Your task to perform on an android device: Open settings Image 0: 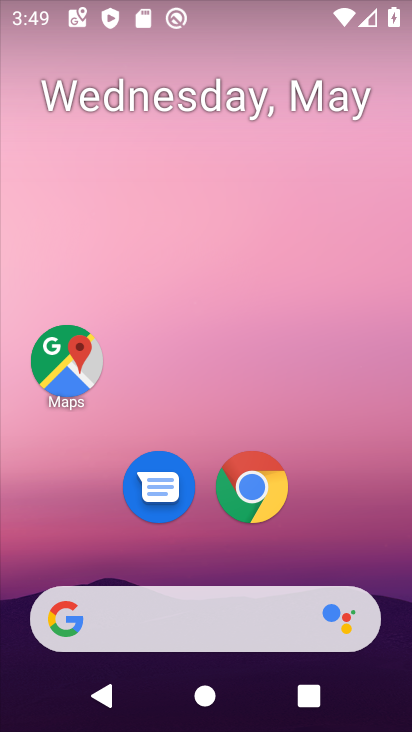
Step 0: drag from (306, 531) to (244, 42)
Your task to perform on an android device: Open settings Image 1: 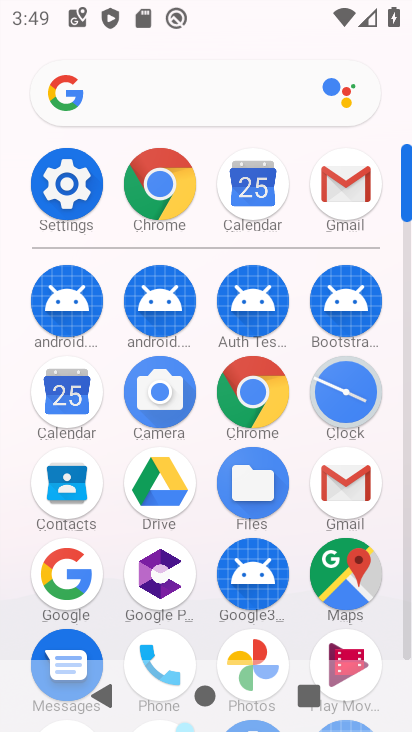
Step 1: drag from (4, 567) to (3, 241)
Your task to perform on an android device: Open settings Image 2: 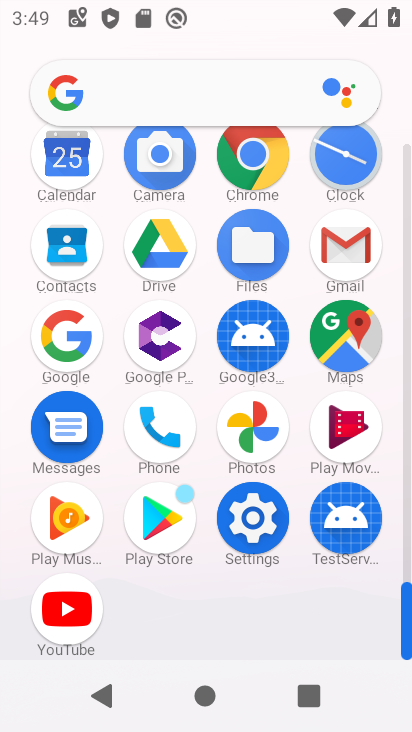
Step 2: click (248, 513)
Your task to perform on an android device: Open settings Image 3: 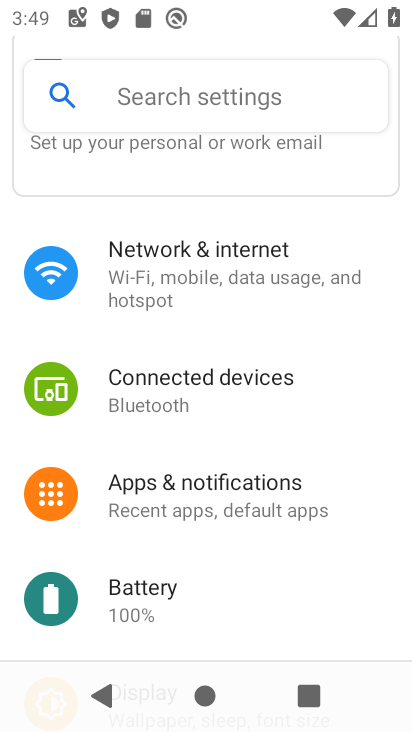
Step 3: task complete